Your task to perform on an android device: Search for sushi restaurants on Maps Image 0: 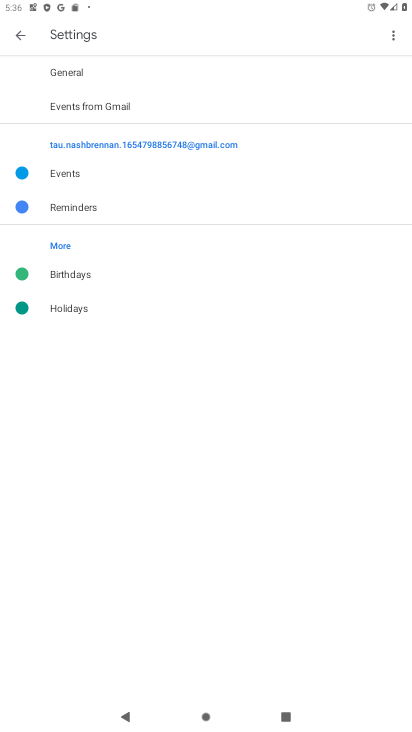
Step 0: press home button
Your task to perform on an android device: Search for sushi restaurants on Maps Image 1: 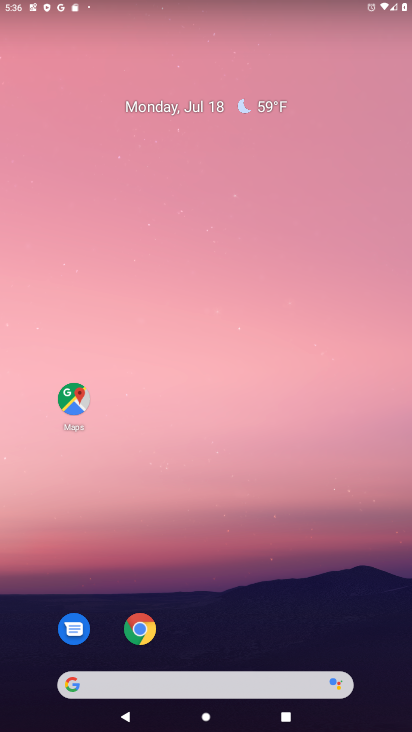
Step 1: drag from (330, 600) to (297, 53)
Your task to perform on an android device: Search for sushi restaurants on Maps Image 2: 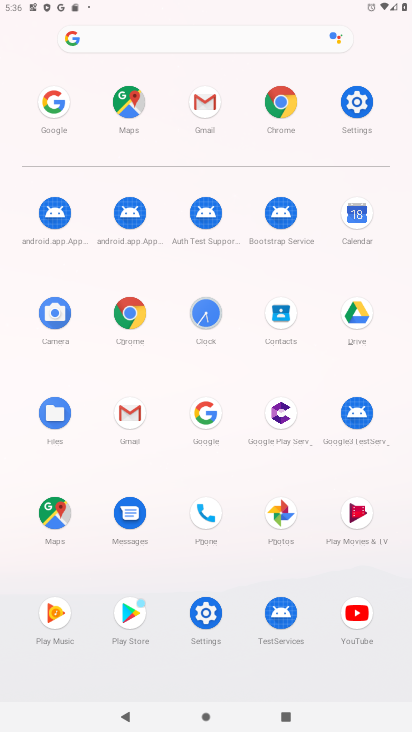
Step 2: click (129, 105)
Your task to perform on an android device: Search for sushi restaurants on Maps Image 3: 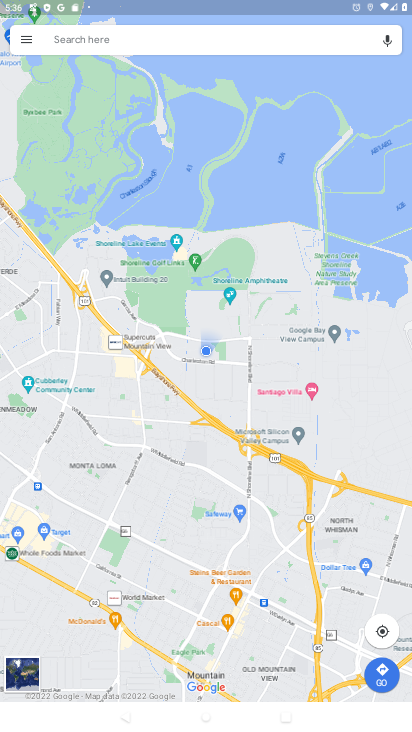
Step 3: click (272, 39)
Your task to perform on an android device: Search for sushi restaurants on Maps Image 4: 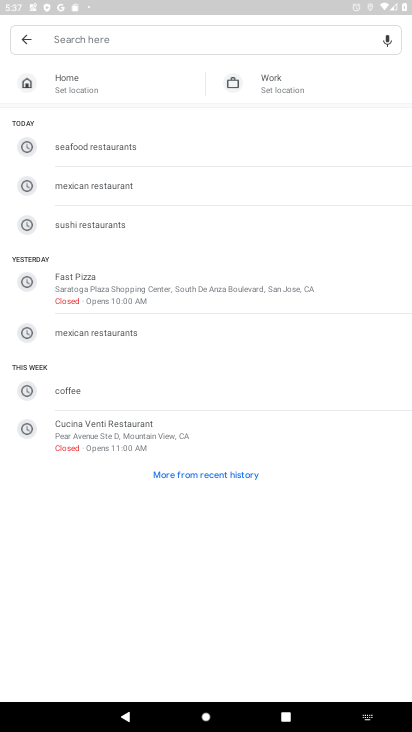
Step 4: type "sushi restaurants"
Your task to perform on an android device: Search for sushi restaurants on Maps Image 5: 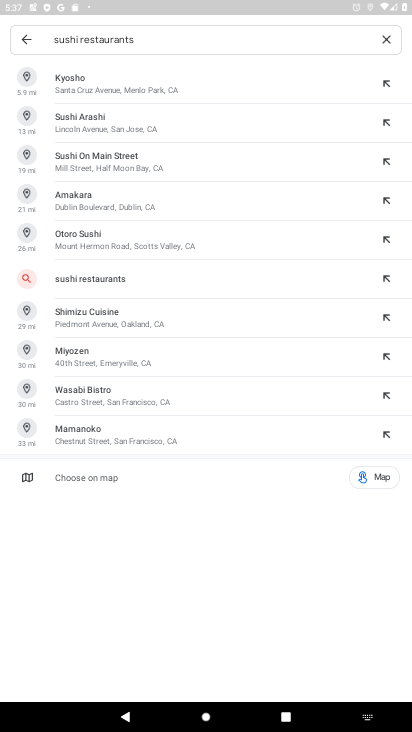
Step 5: press enter
Your task to perform on an android device: Search for sushi restaurants on Maps Image 6: 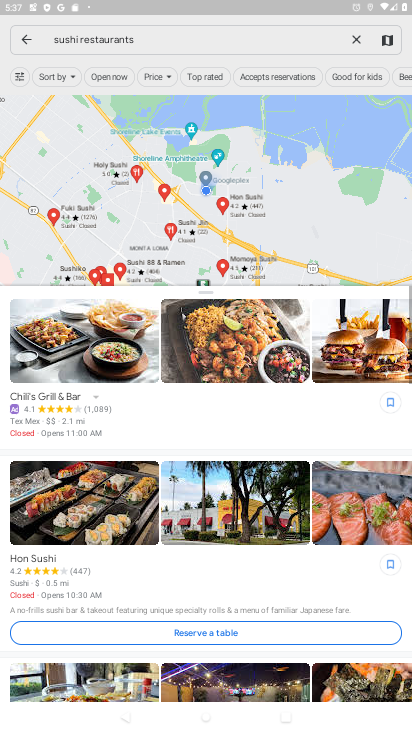
Step 6: task complete